Your task to perform on an android device: turn on translation in the chrome app Image 0: 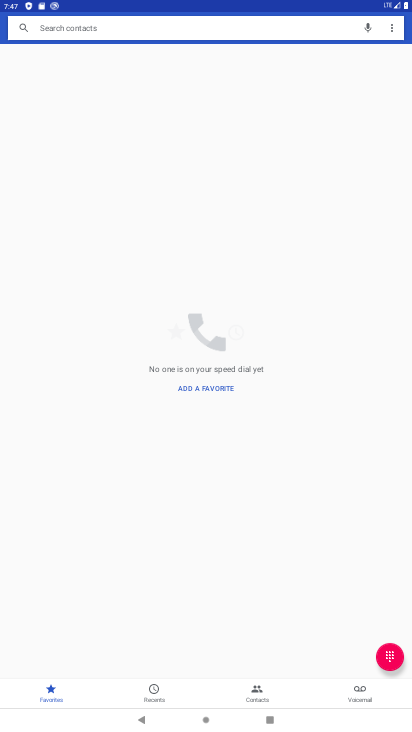
Step 0: press home button
Your task to perform on an android device: turn on translation in the chrome app Image 1: 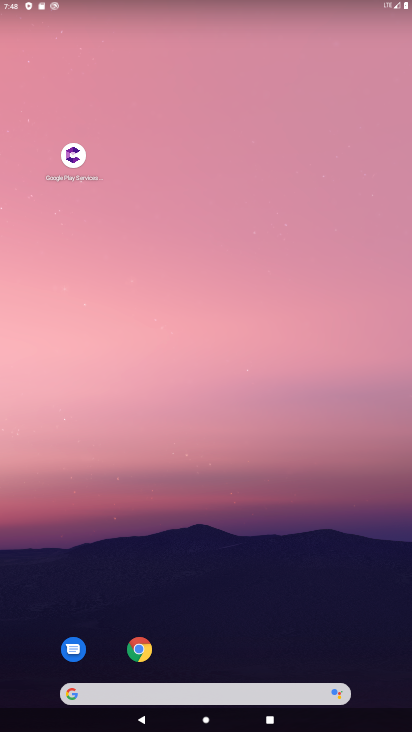
Step 1: click (141, 650)
Your task to perform on an android device: turn on translation in the chrome app Image 2: 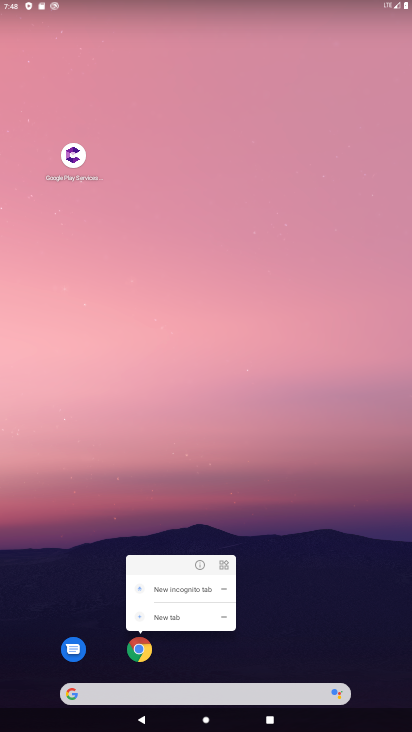
Step 2: click (141, 650)
Your task to perform on an android device: turn on translation in the chrome app Image 3: 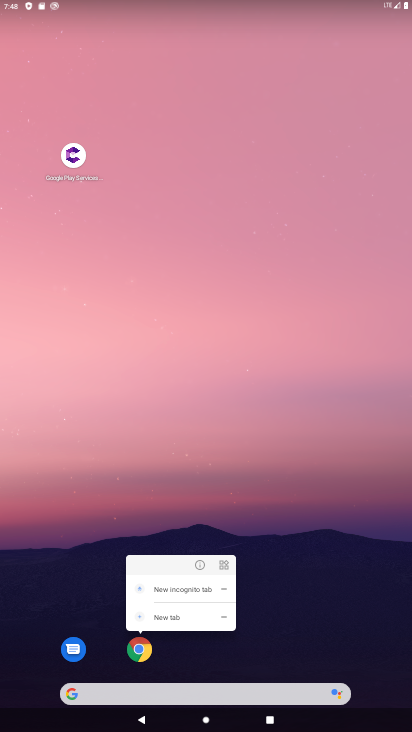
Step 3: click (141, 650)
Your task to perform on an android device: turn on translation in the chrome app Image 4: 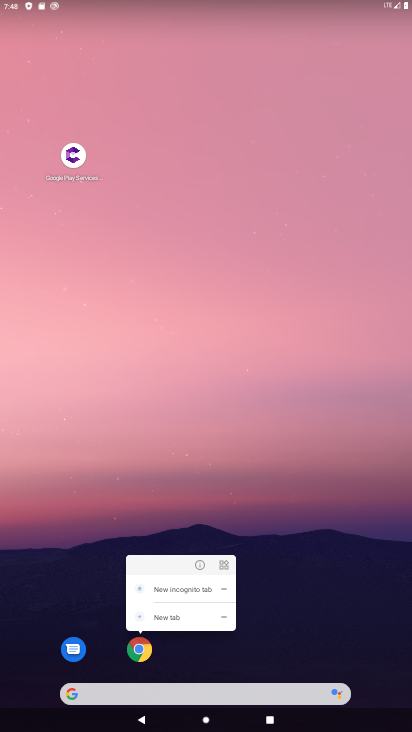
Step 4: click (141, 650)
Your task to perform on an android device: turn on translation in the chrome app Image 5: 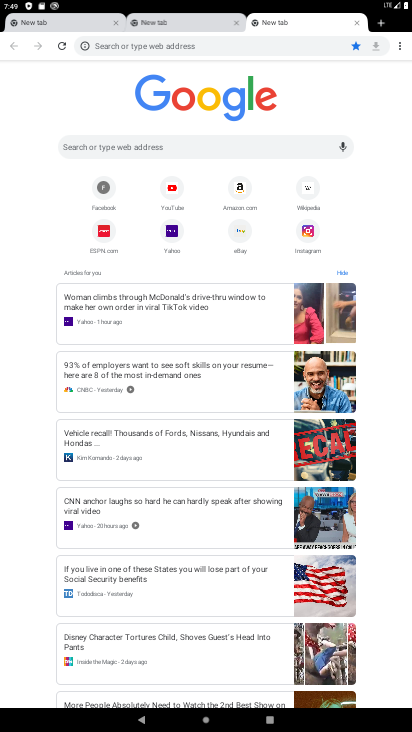
Step 5: click (404, 43)
Your task to perform on an android device: turn on translation in the chrome app Image 6: 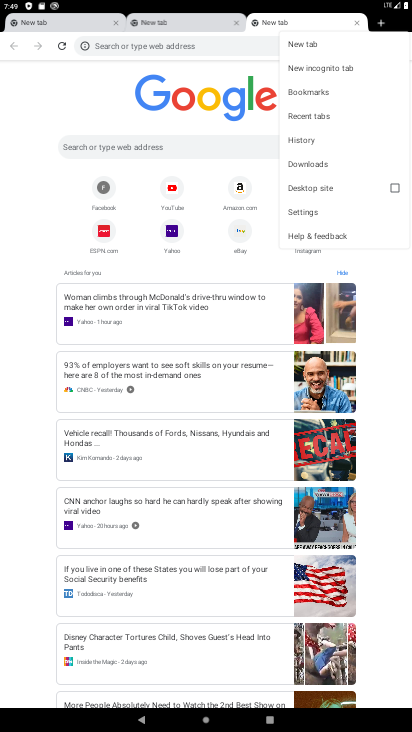
Step 6: click (306, 211)
Your task to perform on an android device: turn on translation in the chrome app Image 7: 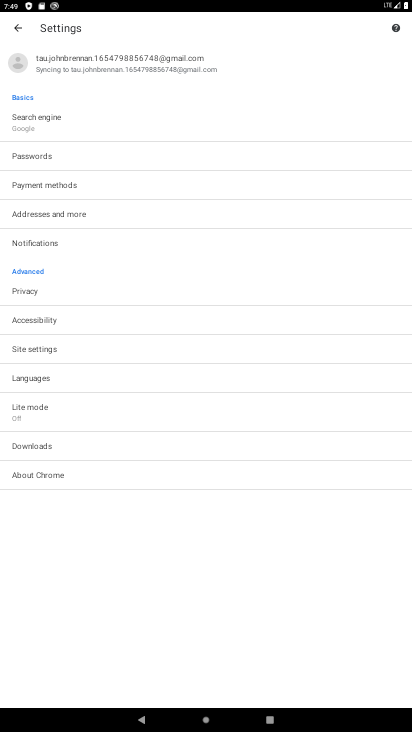
Step 7: click (51, 380)
Your task to perform on an android device: turn on translation in the chrome app Image 8: 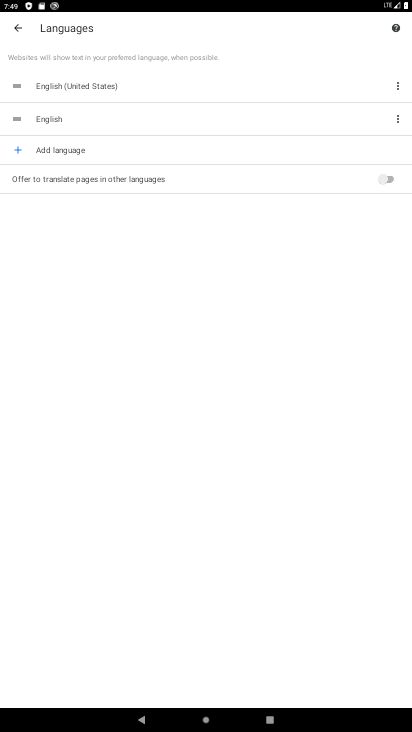
Step 8: click (391, 180)
Your task to perform on an android device: turn on translation in the chrome app Image 9: 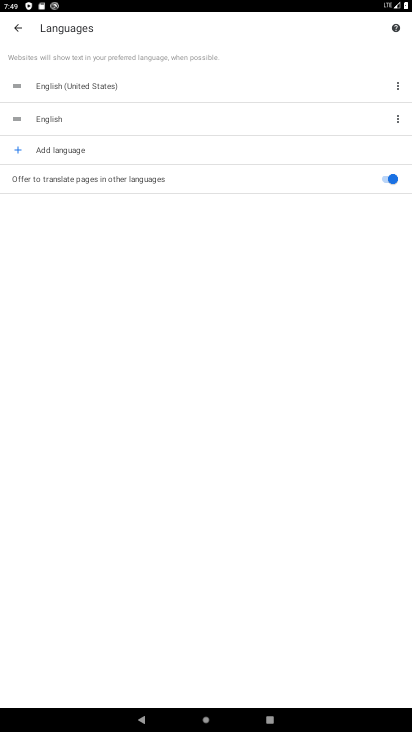
Step 9: task complete